Your task to perform on an android device: toggle wifi Image 0: 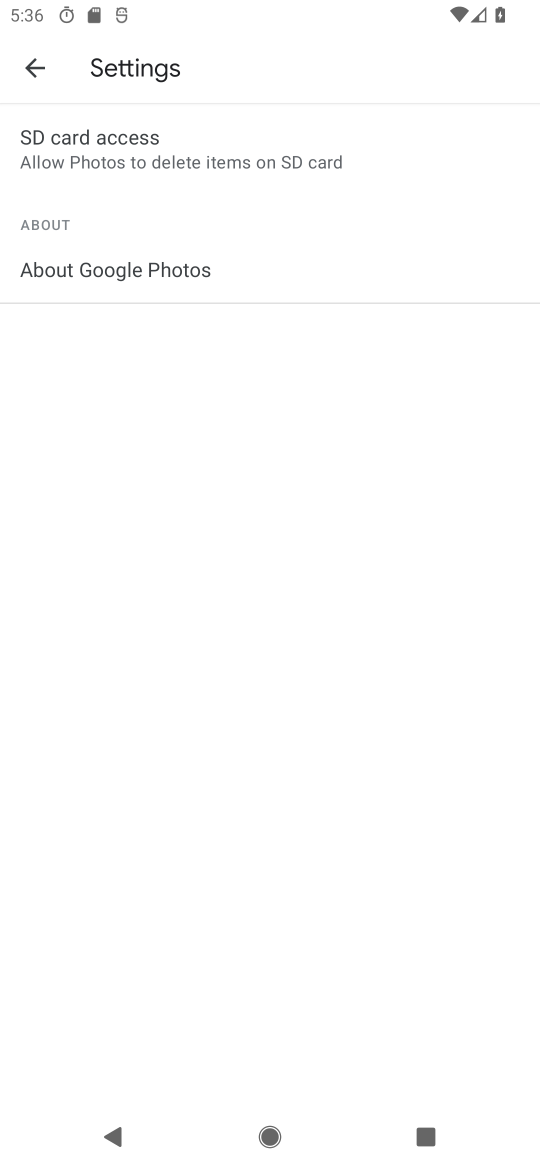
Step 0: press home button
Your task to perform on an android device: toggle wifi Image 1: 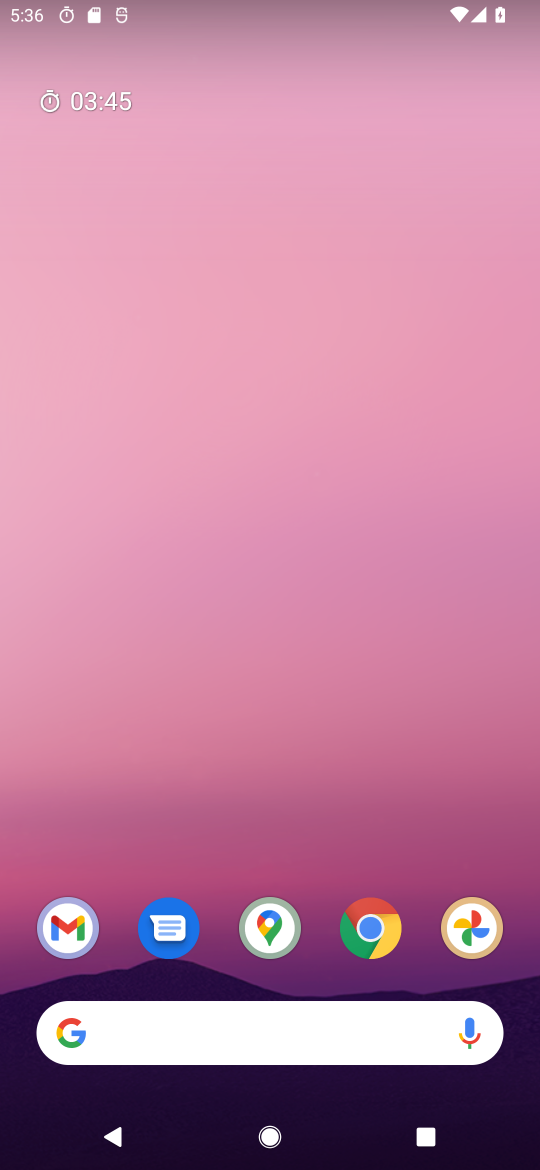
Step 1: drag from (235, 979) to (246, 138)
Your task to perform on an android device: toggle wifi Image 2: 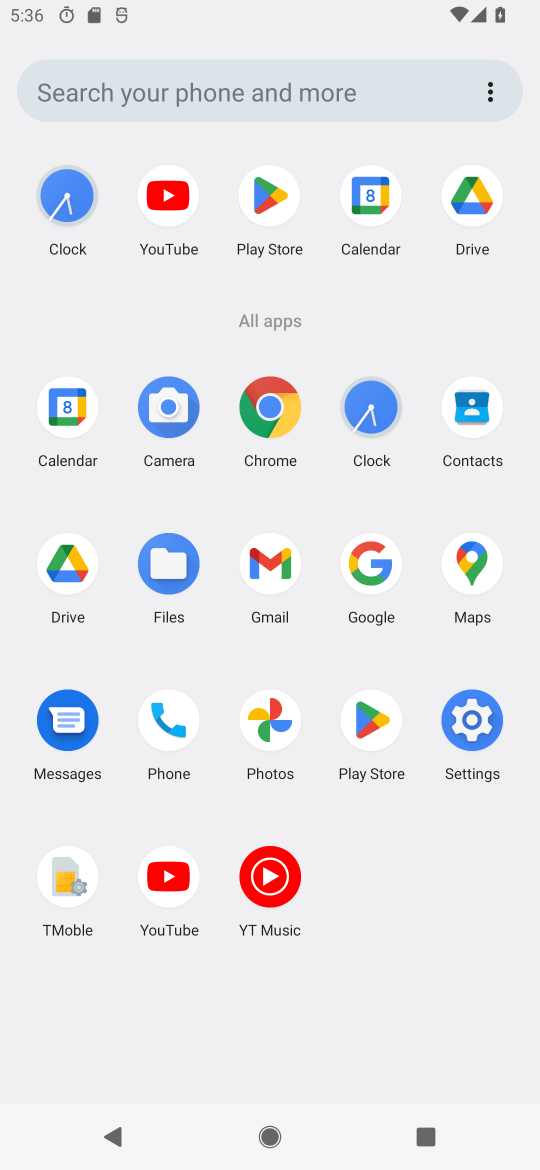
Step 2: click (475, 751)
Your task to perform on an android device: toggle wifi Image 3: 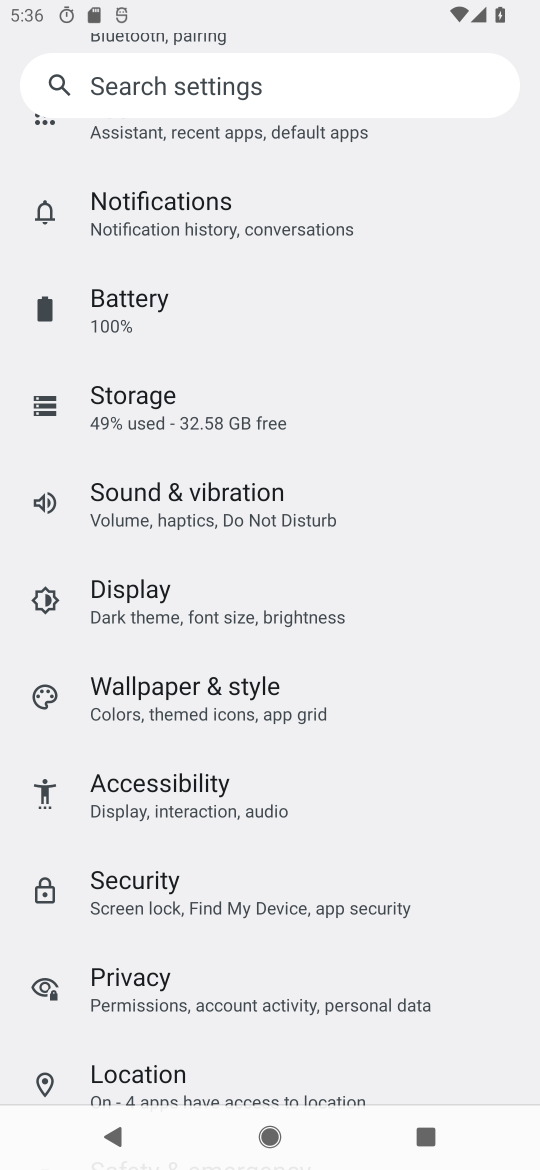
Step 3: drag from (235, 390) to (226, 961)
Your task to perform on an android device: toggle wifi Image 4: 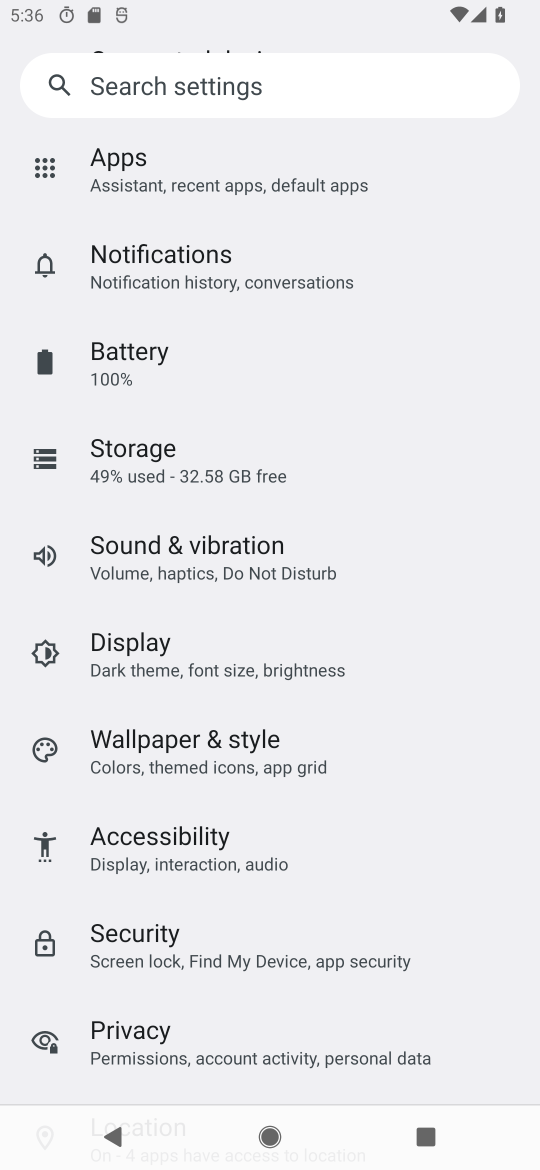
Step 4: drag from (290, 528) to (220, 1154)
Your task to perform on an android device: toggle wifi Image 5: 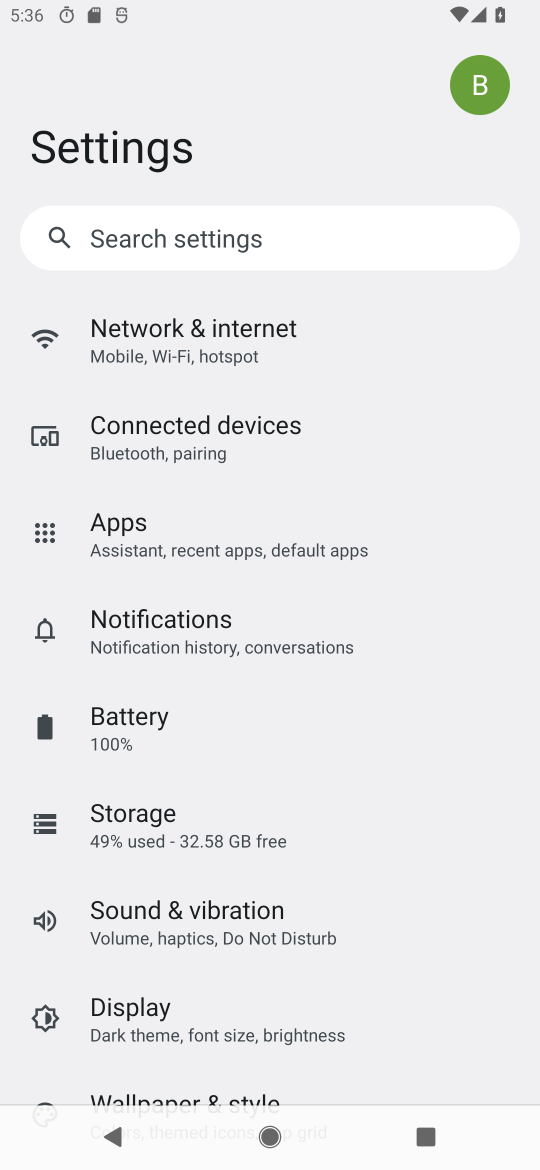
Step 5: click (193, 352)
Your task to perform on an android device: toggle wifi Image 6: 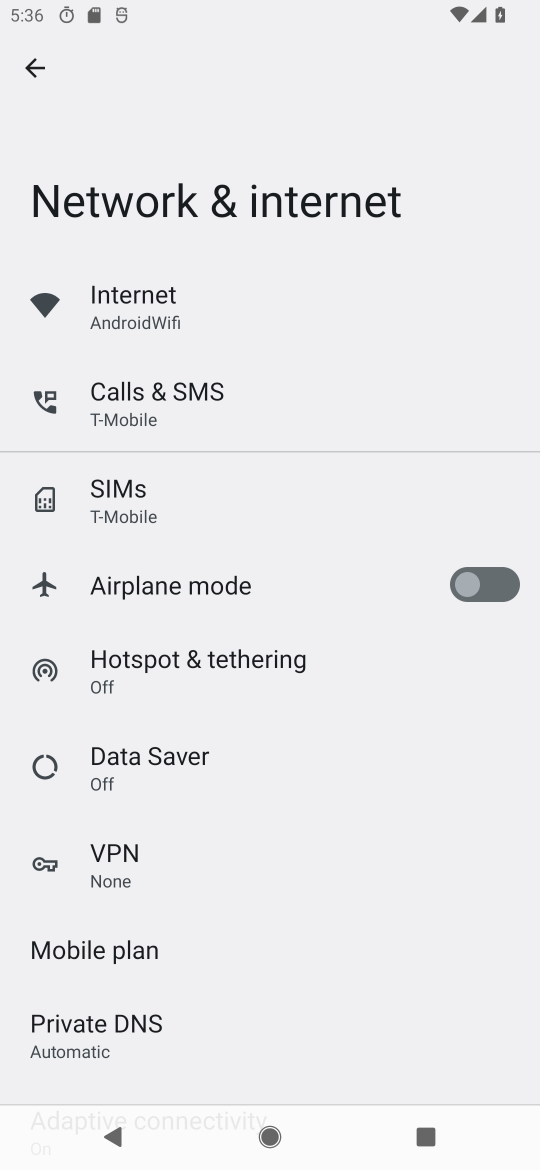
Step 6: click (156, 297)
Your task to perform on an android device: toggle wifi Image 7: 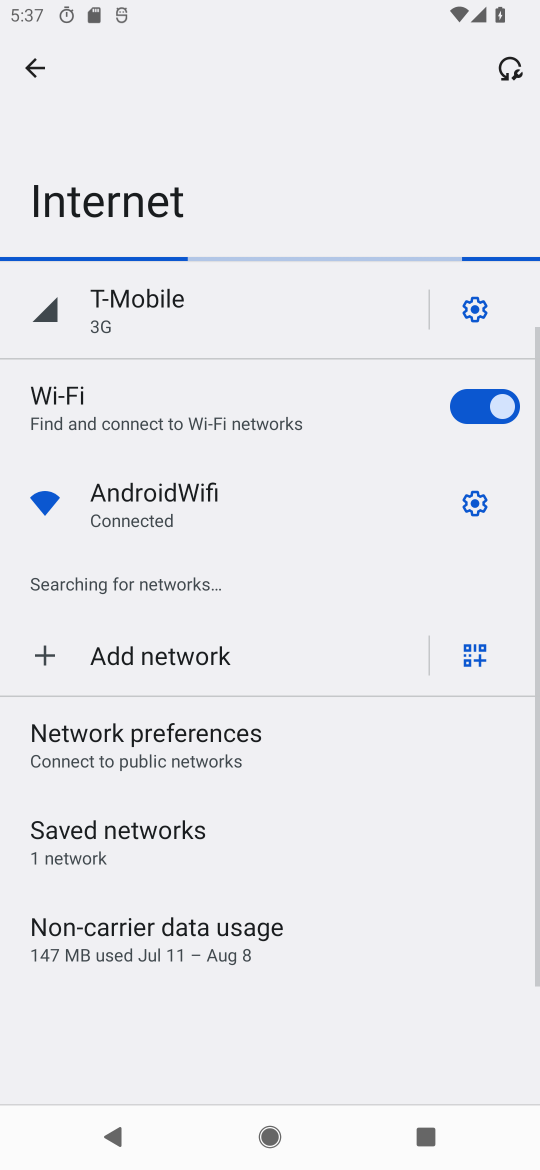
Step 7: click (433, 398)
Your task to perform on an android device: toggle wifi Image 8: 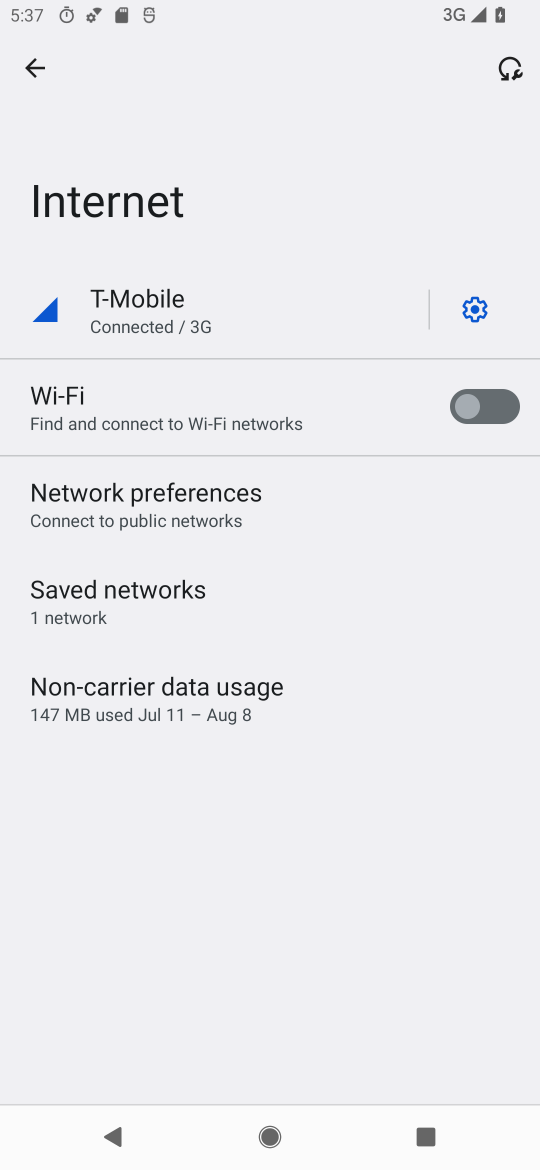
Step 8: task complete